Your task to perform on an android device: open app "Google Home" (install if not already installed) Image 0: 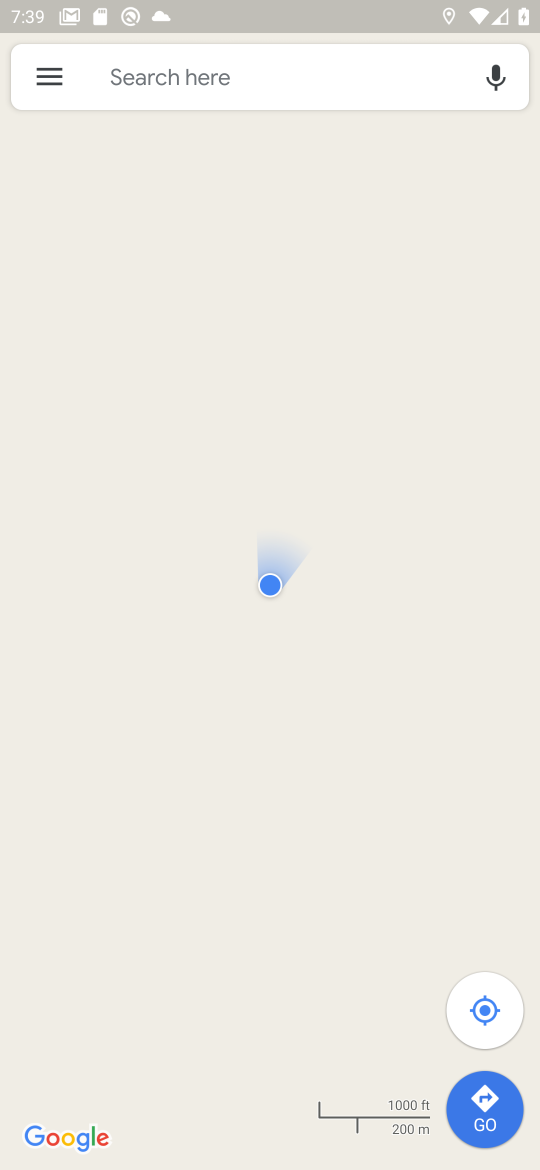
Step 0: press home button
Your task to perform on an android device: open app "Google Home" (install if not already installed) Image 1: 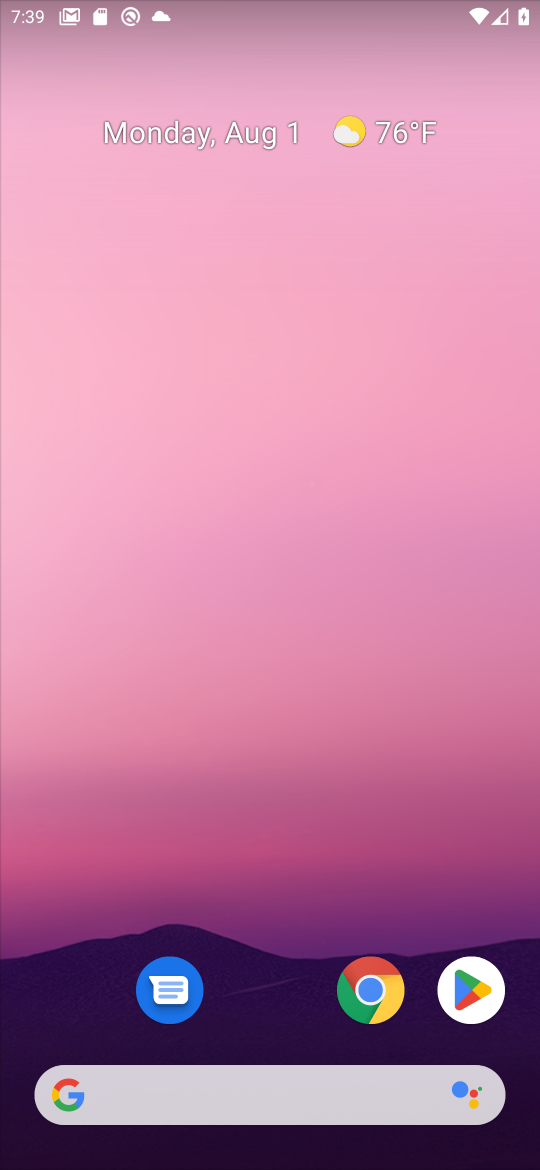
Step 1: press home button
Your task to perform on an android device: open app "Google Home" (install if not already installed) Image 2: 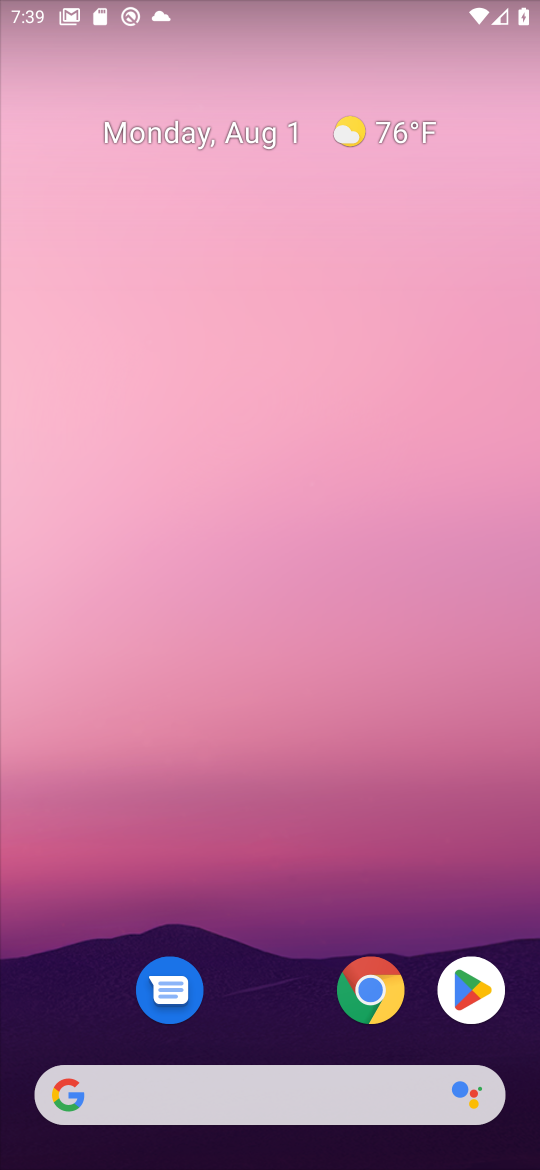
Step 2: click (480, 982)
Your task to perform on an android device: open app "Google Home" (install if not already installed) Image 3: 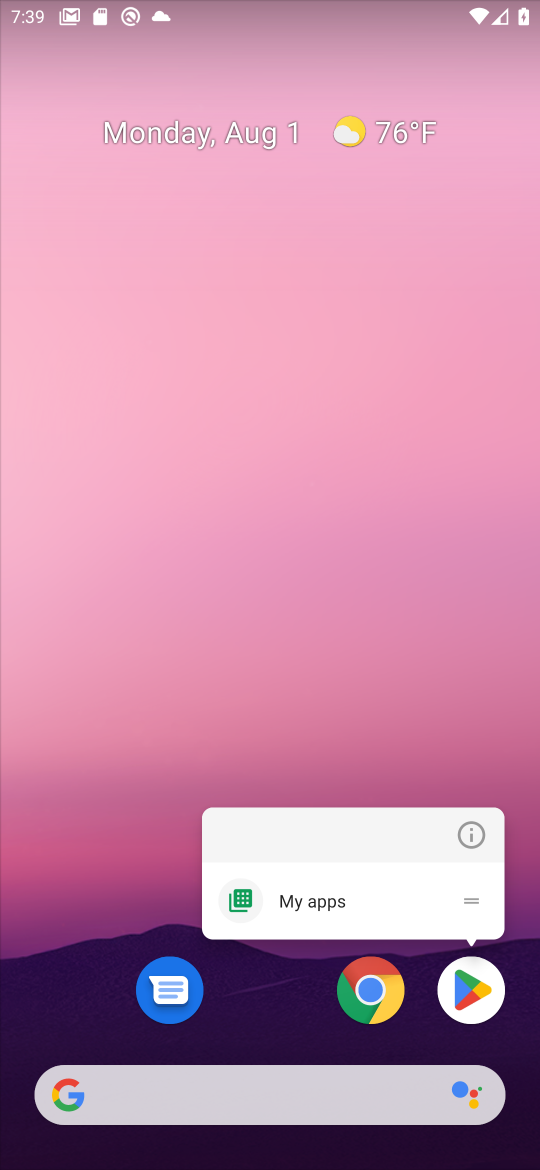
Step 3: click (472, 997)
Your task to perform on an android device: open app "Google Home" (install if not already installed) Image 4: 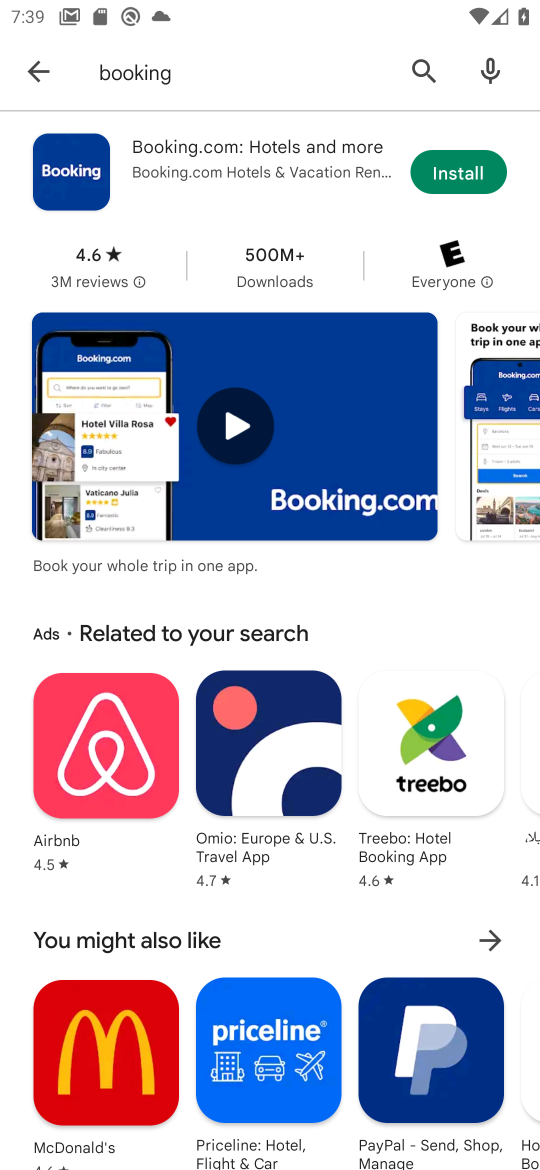
Step 4: click (409, 57)
Your task to perform on an android device: open app "Google Home" (install if not already installed) Image 5: 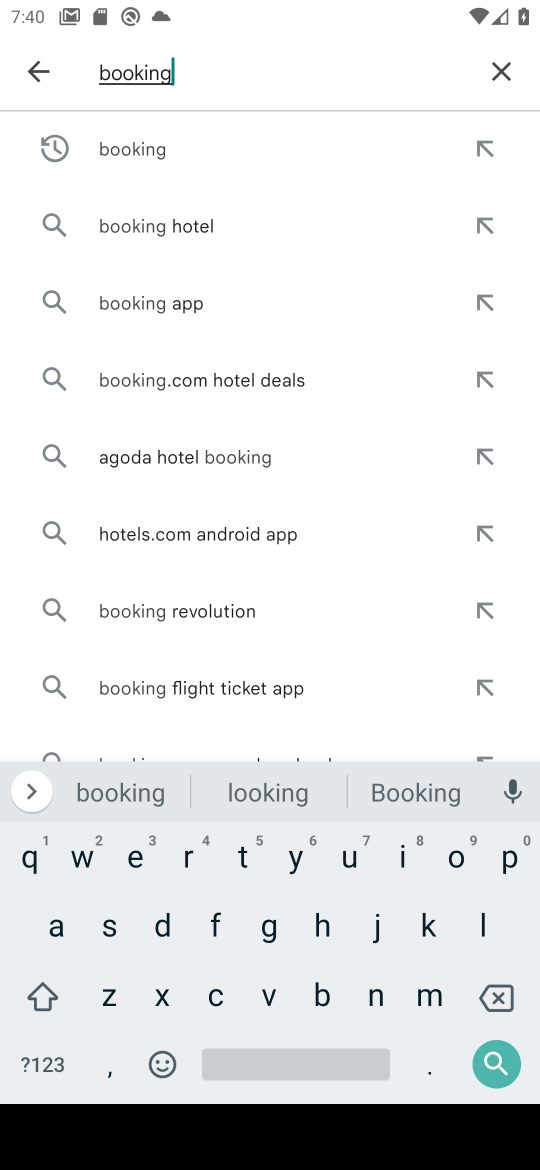
Step 5: click (495, 66)
Your task to perform on an android device: open app "Google Home" (install if not already installed) Image 6: 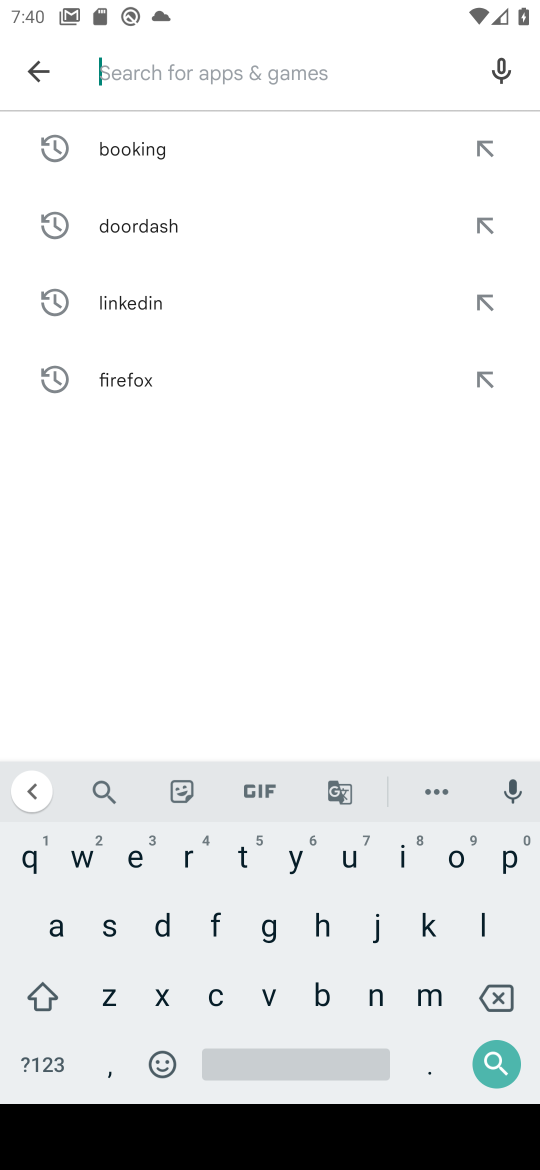
Step 6: type "google home"
Your task to perform on an android device: open app "Google Home" (install if not already installed) Image 7: 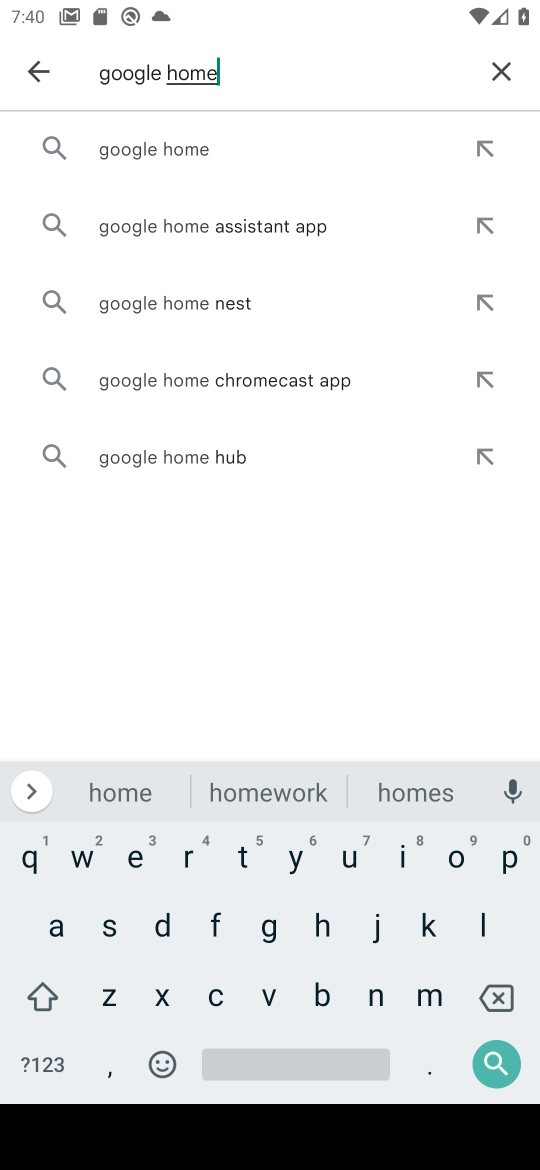
Step 7: click (263, 168)
Your task to perform on an android device: open app "Google Home" (install if not already installed) Image 8: 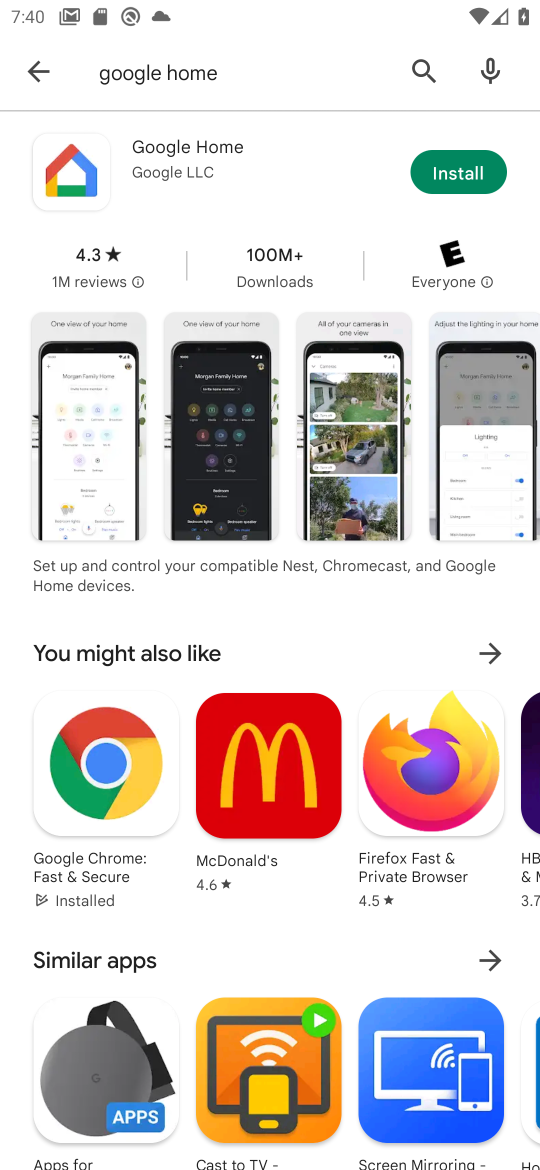
Step 8: click (458, 165)
Your task to perform on an android device: open app "Google Home" (install if not already installed) Image 9: 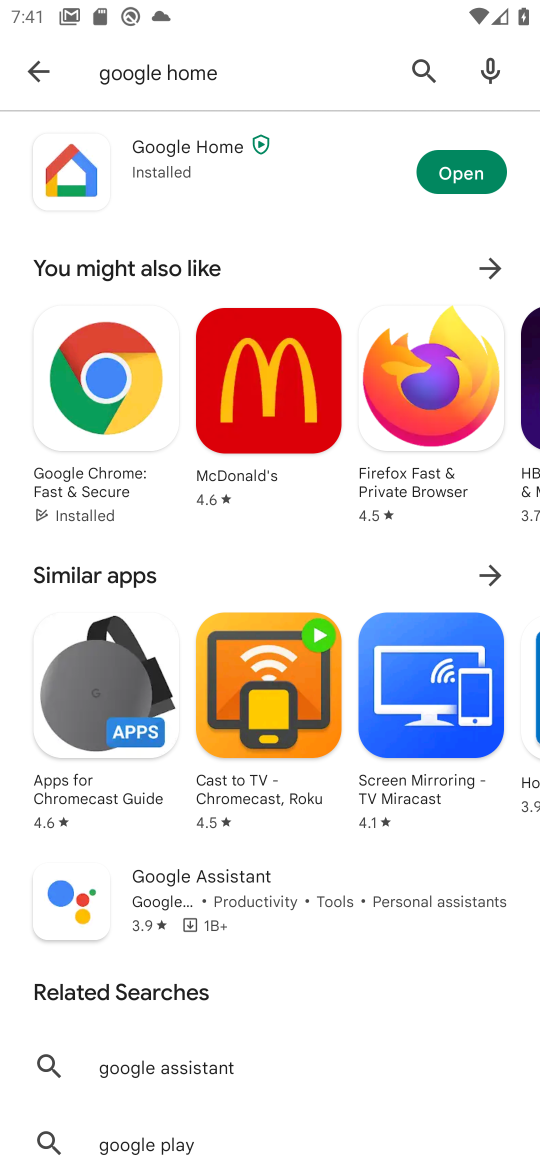
Step 9: click (478, 172)
Your task to perform on an android device: open app "Google Home" (install if not already installed) Image 10: 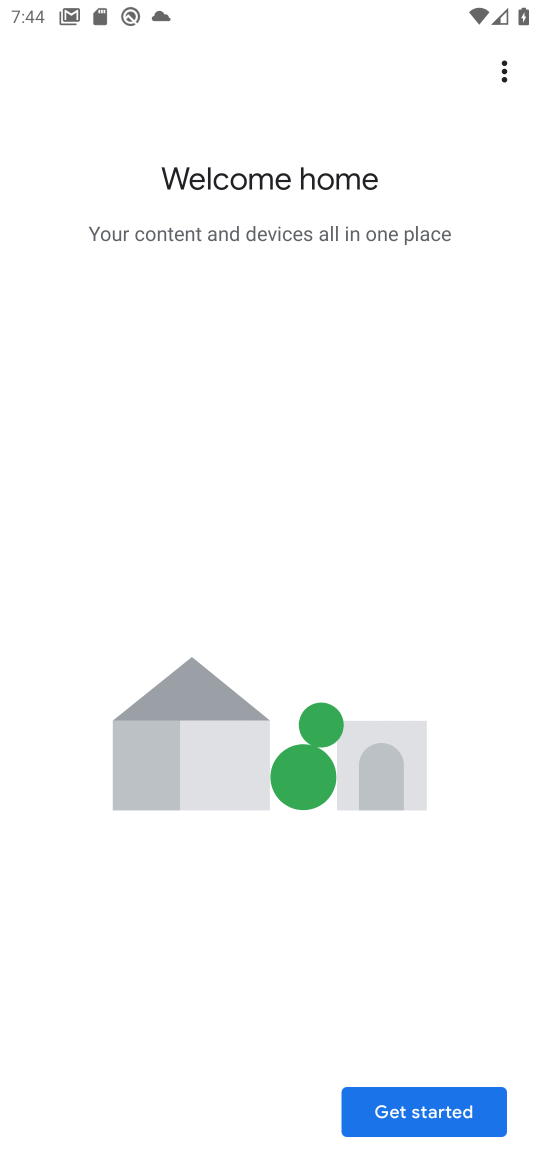
Step 10: task complete